Your task to perform on an android device: Add usb-c to usb-b to the cart on walmart, then select checkout. Image 0: 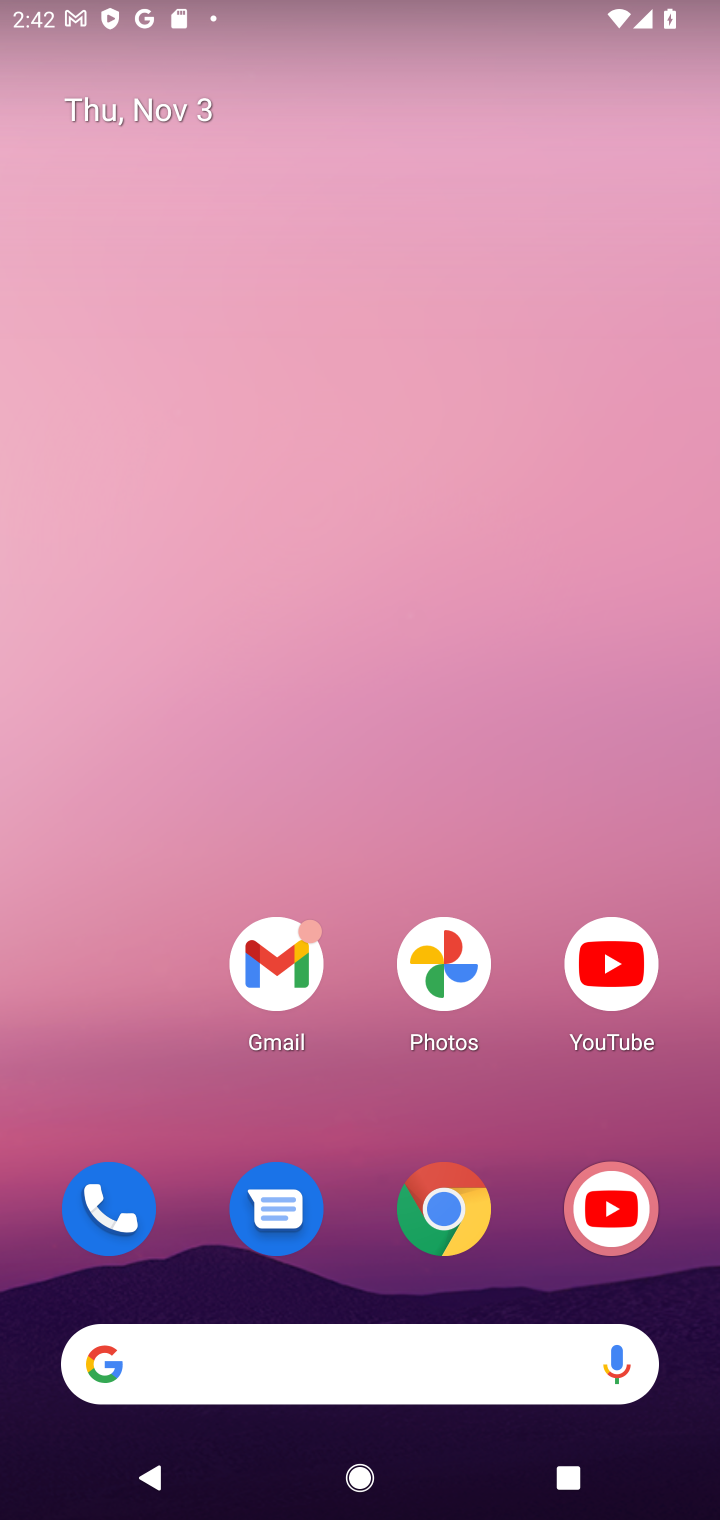
Step 0: click (454, 1254)
Your task to perform on an android device: Add usb-c to usb-b to the cart on walmart, then select checkout. Image 1: 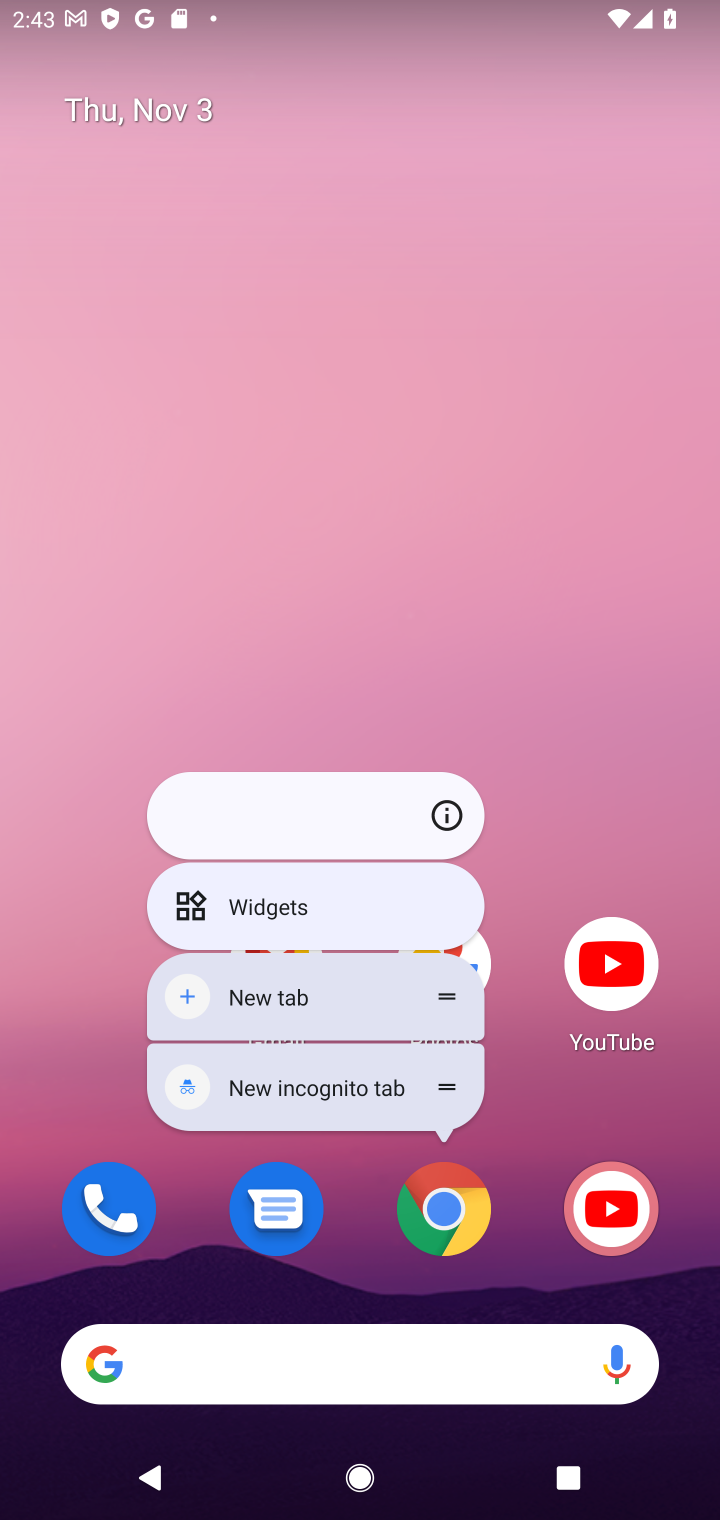
Step 1: click (445, 1225)
Your task to perform on an android device: Add usb-c to usb-b to the cart on walmart, then select checkout. Image 2: 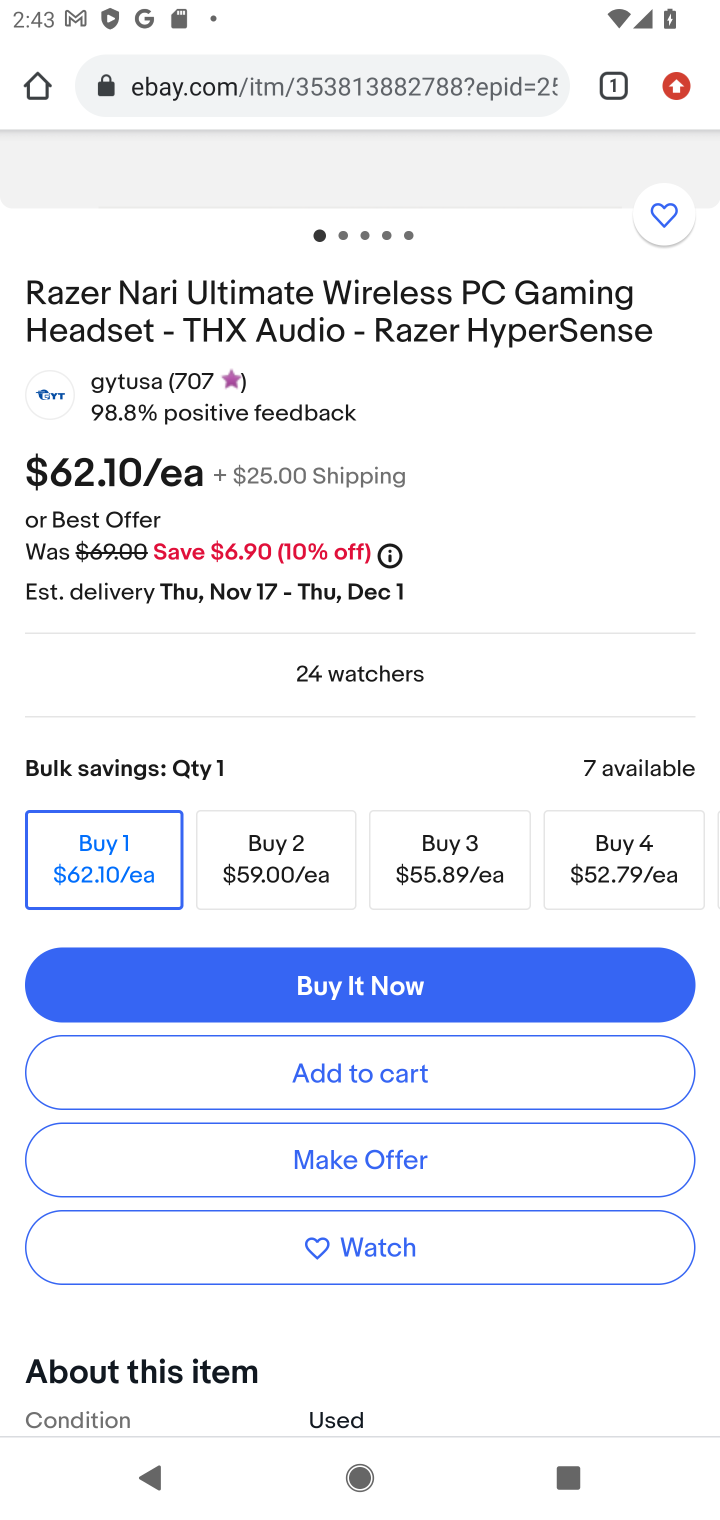
Step 2: click (366, 95)
Your task to perform on an android device: Add usb-c to usb-b to the cart on walmart, then select checkout. Image 3: 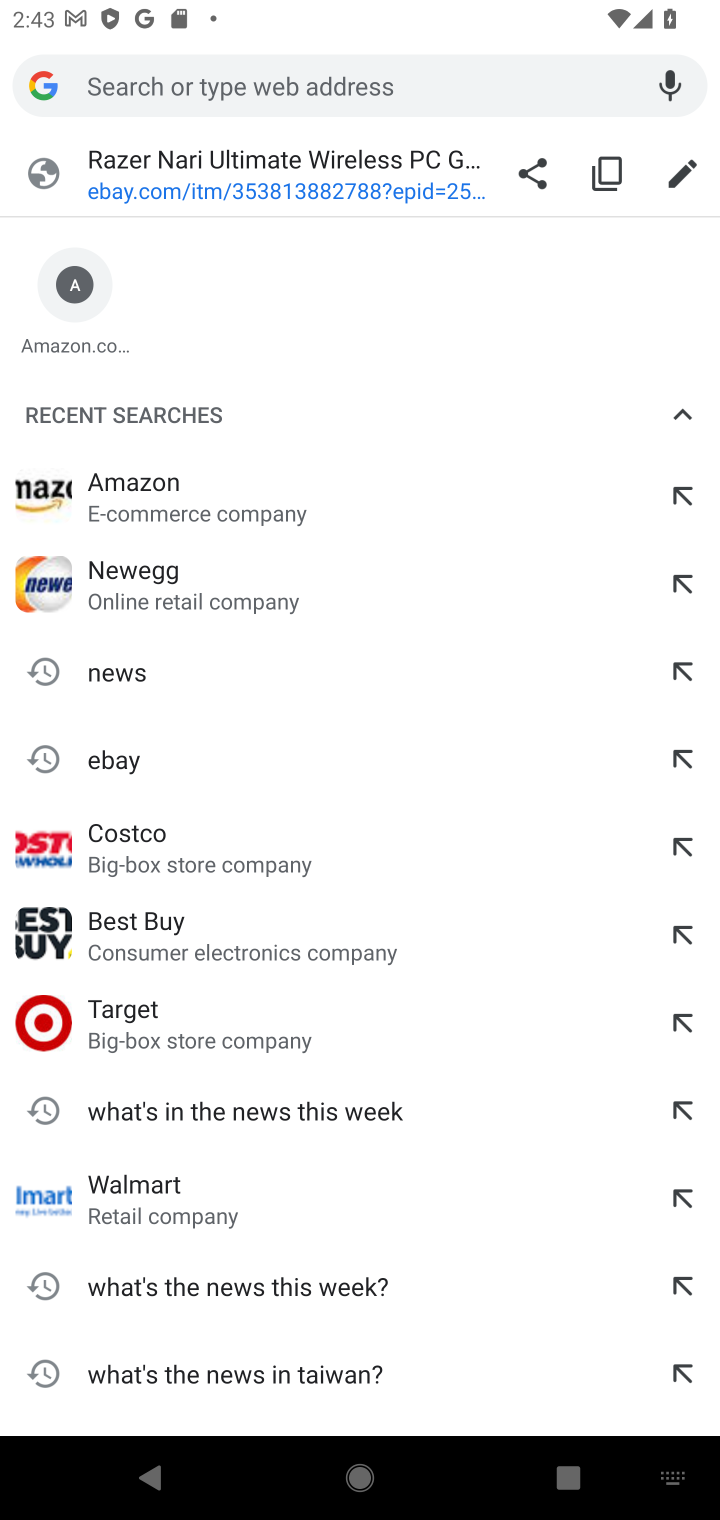
Step 3: type "walmart"
Your task to perform on an android device: Add usb-c to usb-b to the cart on walmart, then select checkout. Image 4: 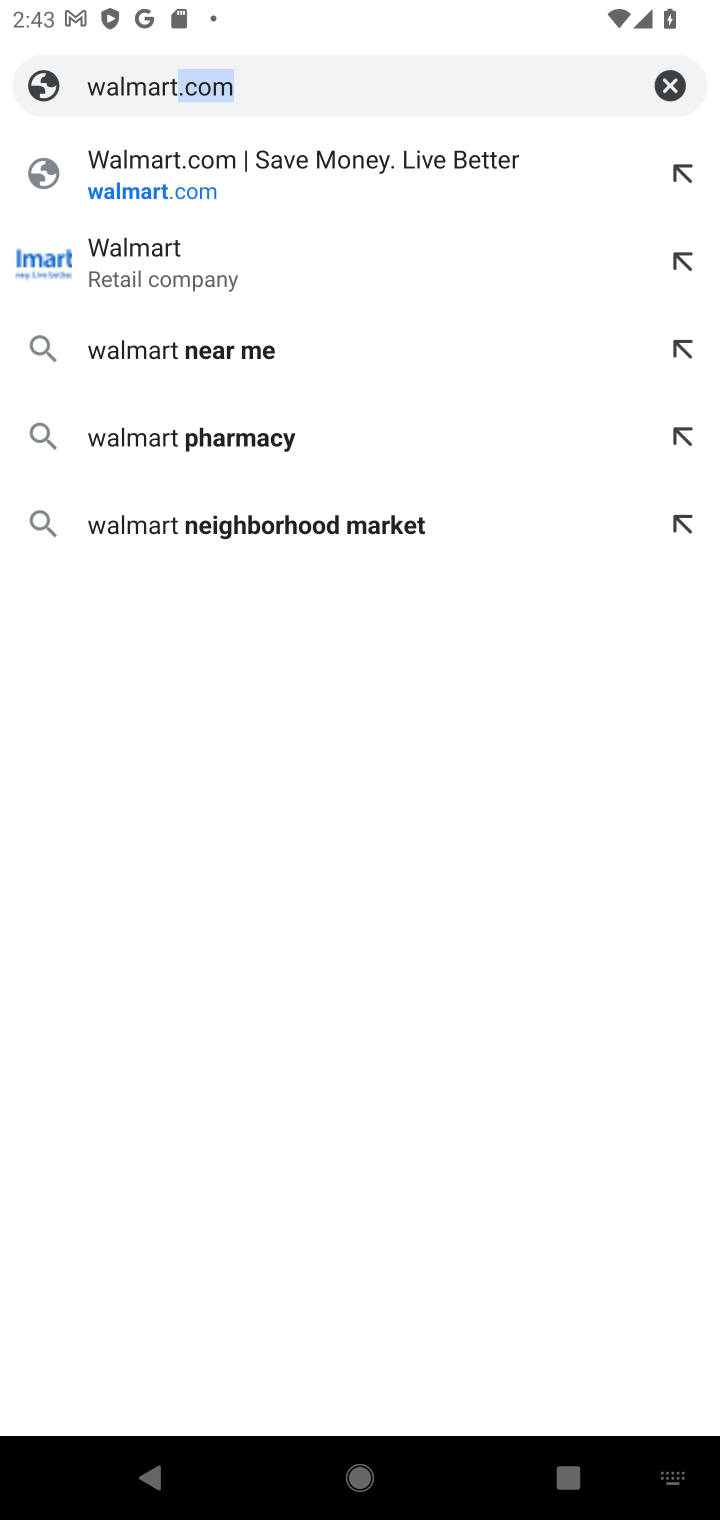
Step 4: click (261, 167)
Your task to perform on an android device: Add usb-c to usb-b to the cart on walmart, then select checkout. Image 5: 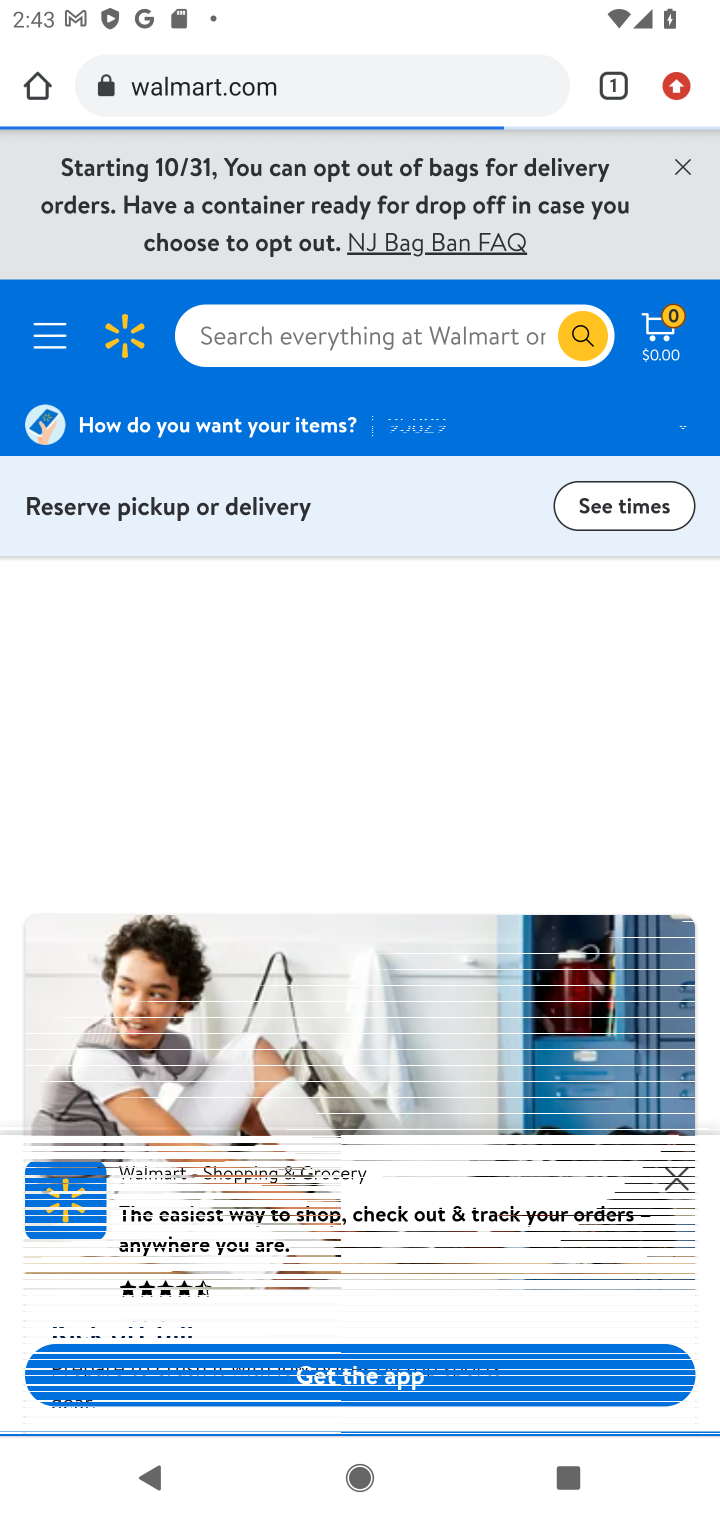
Step 5: click (358, 333)
Your task to perform on an android device: Add usb-c to usb-b to the cart on walmart, then select checkout. Image 6: 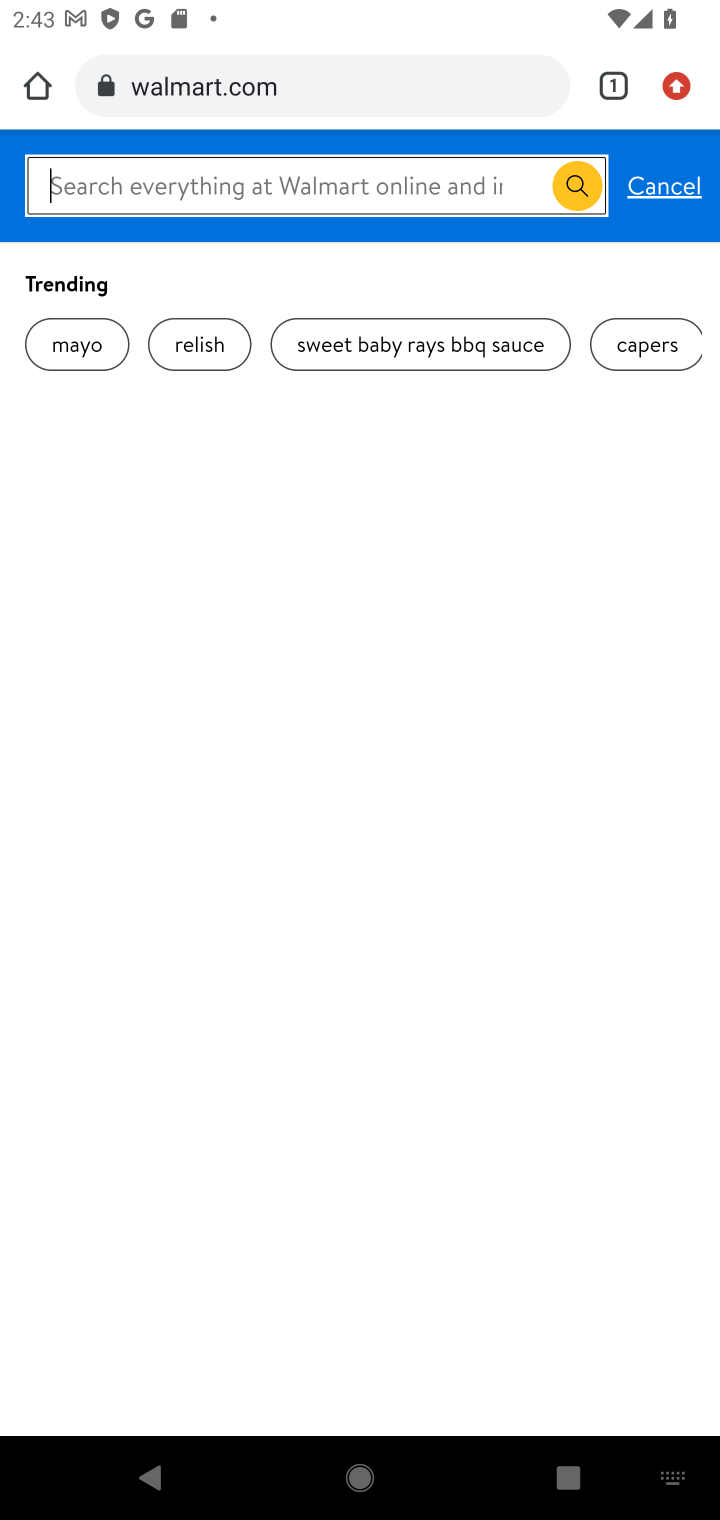
Step 6: type "usb-c to usb-b"
Your task to perform on an android device: Add usb-c to usb-b to the cart on walmart, then select checkout. Image 7: 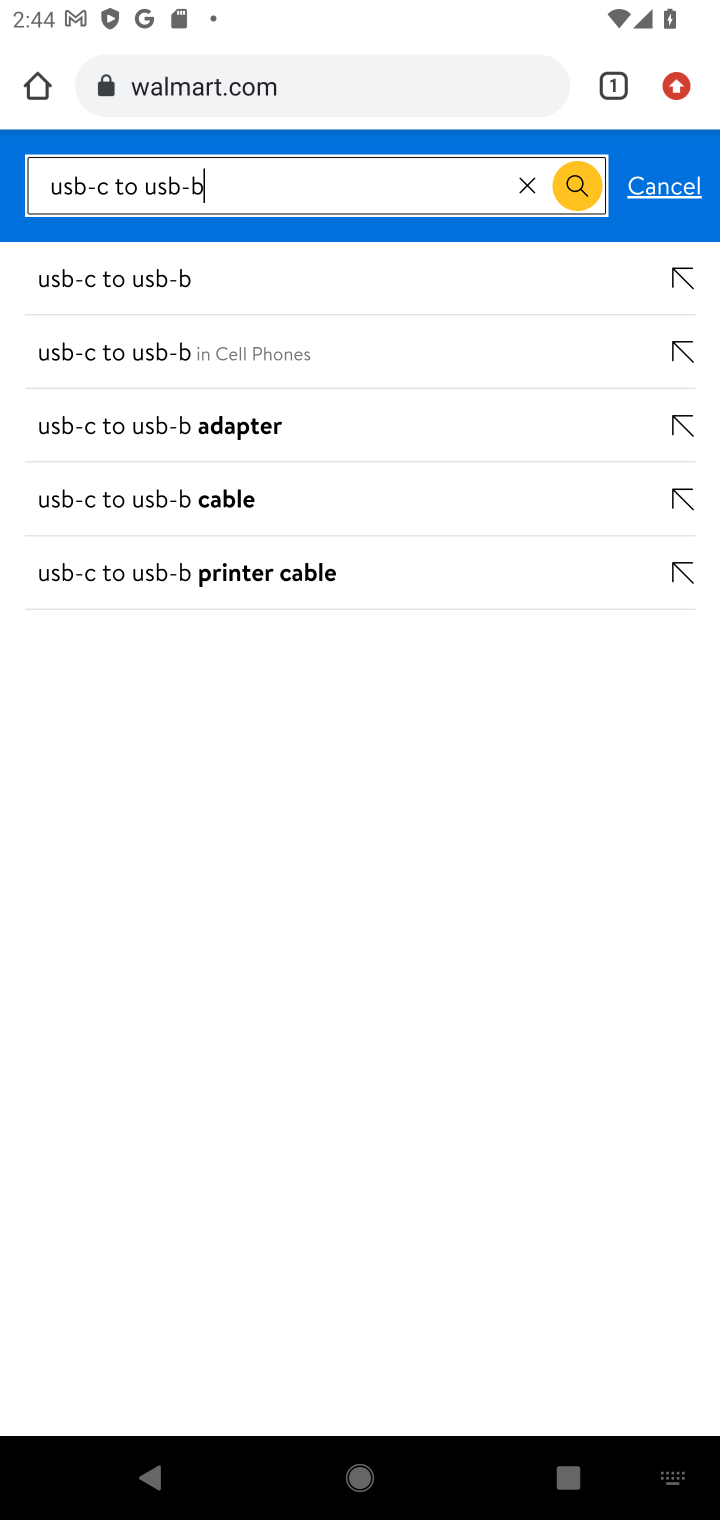
Step 7: press enter
Your task to perform on an android device: Add usb-c to usb-b to the cart on walmart, then select checkout. Image 8: 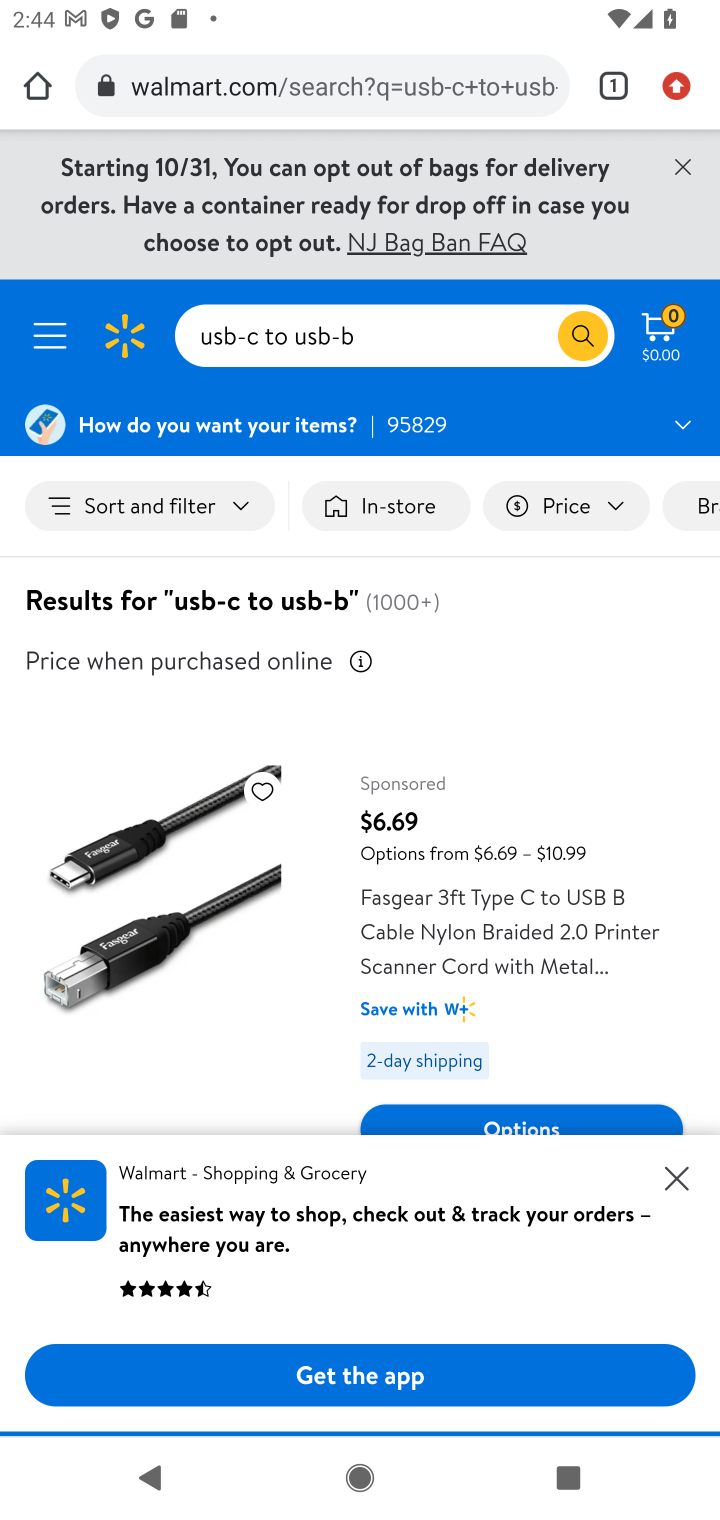
Step 8: click (671, 1169)
Your task to perform on an android device: Add usb-c to usb-b to the cart on walmart, then select checkout. Image 9: 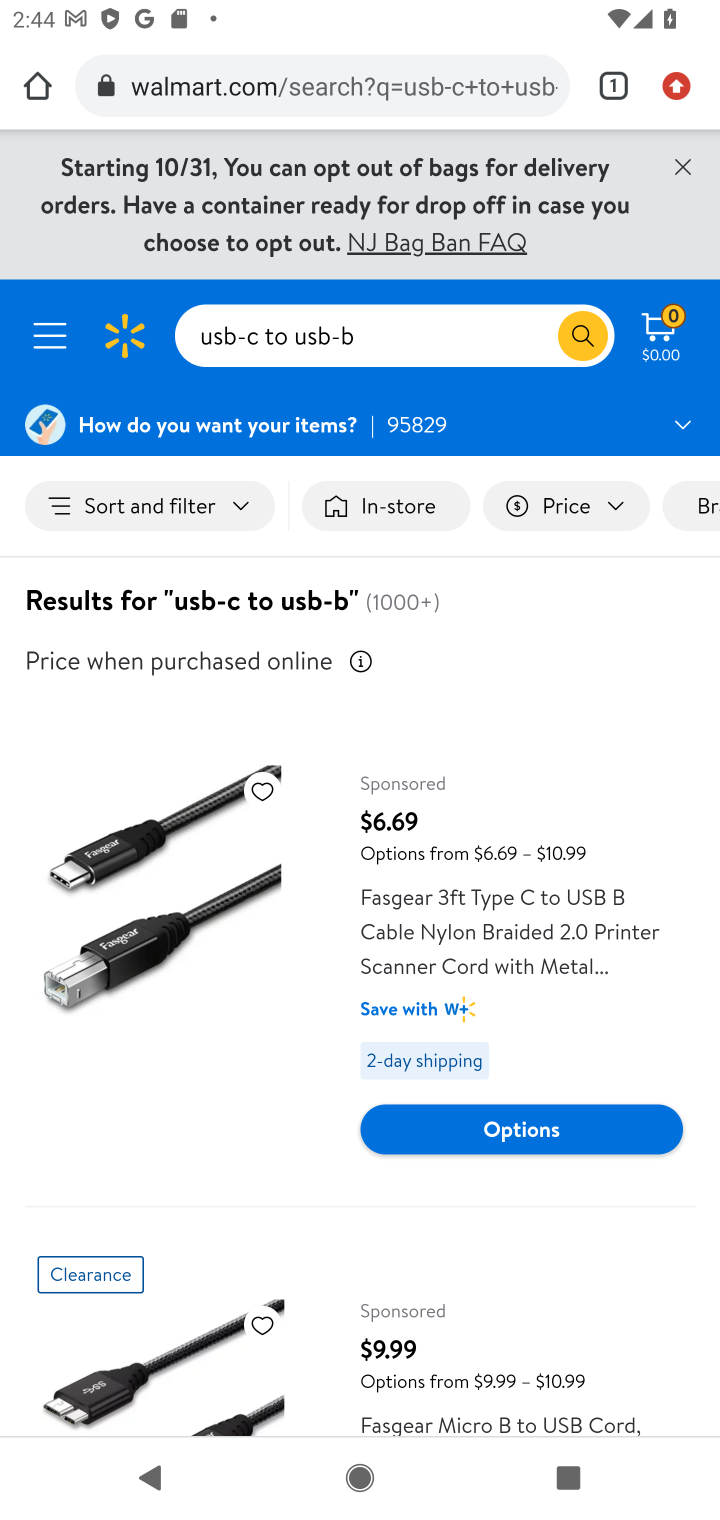
Step 9: click (419, 929)
Your task to perform on an android device: Add usb-c to usb-b to the cart on walmart, then select checkout. Image 10: 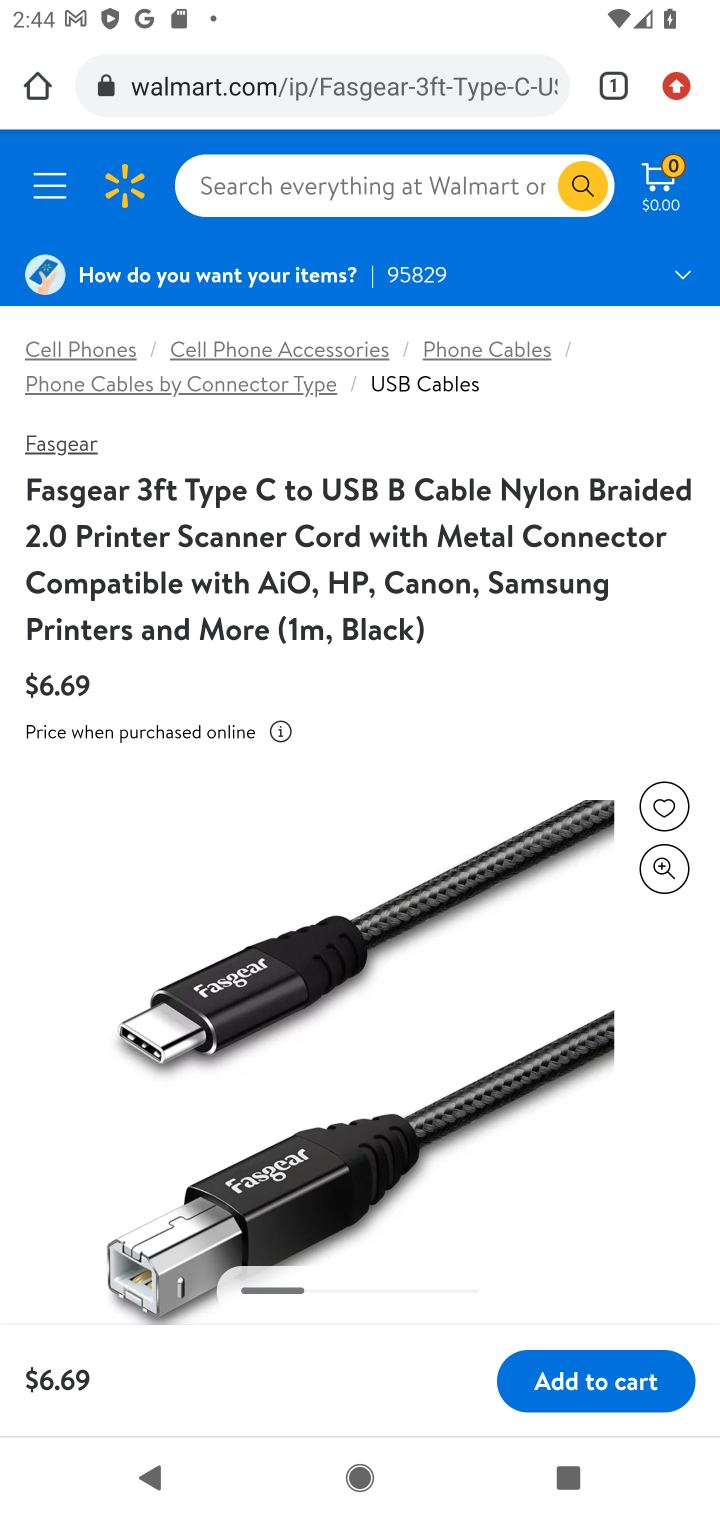
Step 10: click (602, 1383)
Your task to perform on an android device: Add usb-c to usb-b to the cart on walmart, then select checkout. Image 11: 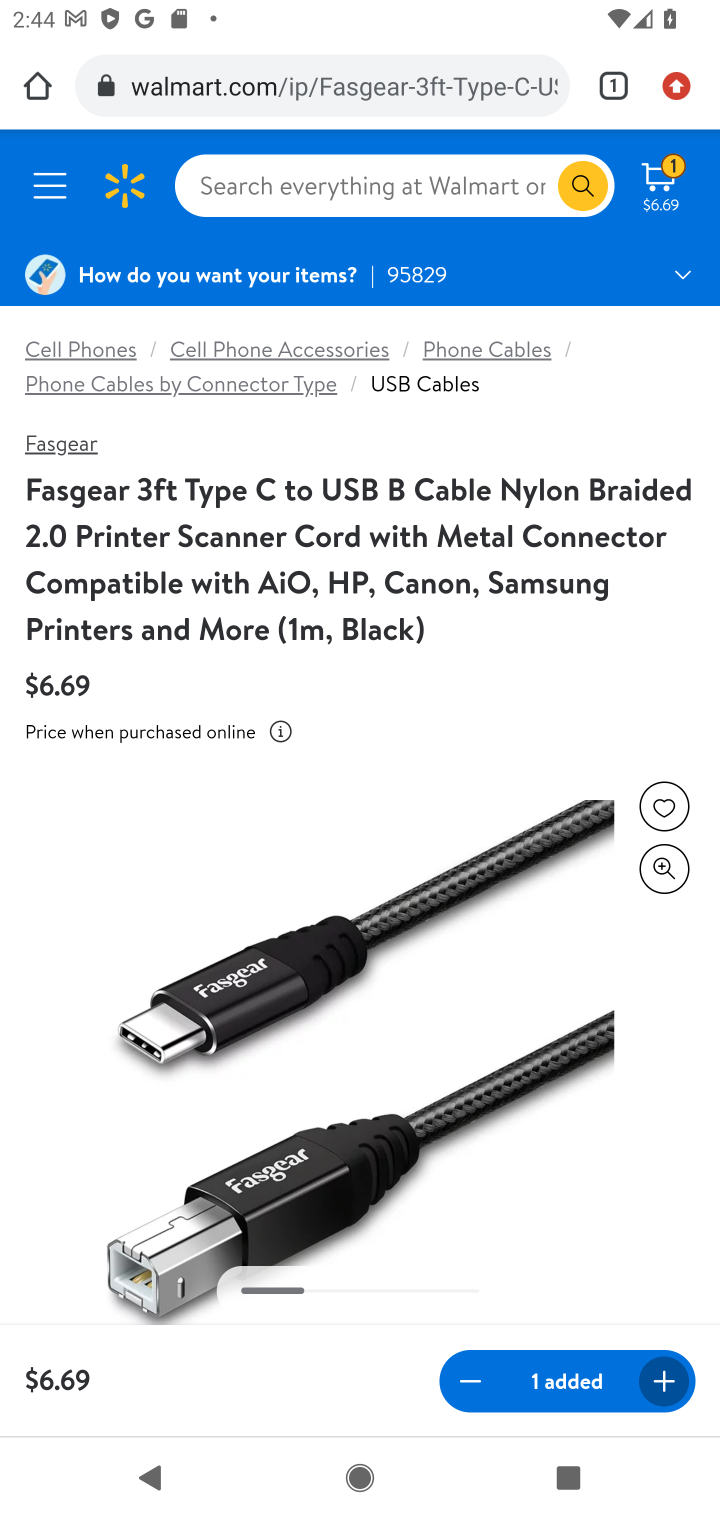
Step 11: drag from (602, 1228) to (475, 605)
Your task to perform on an android device: Add usb-c to usb-b to the cart on walmart, then select checkout. Image 12: 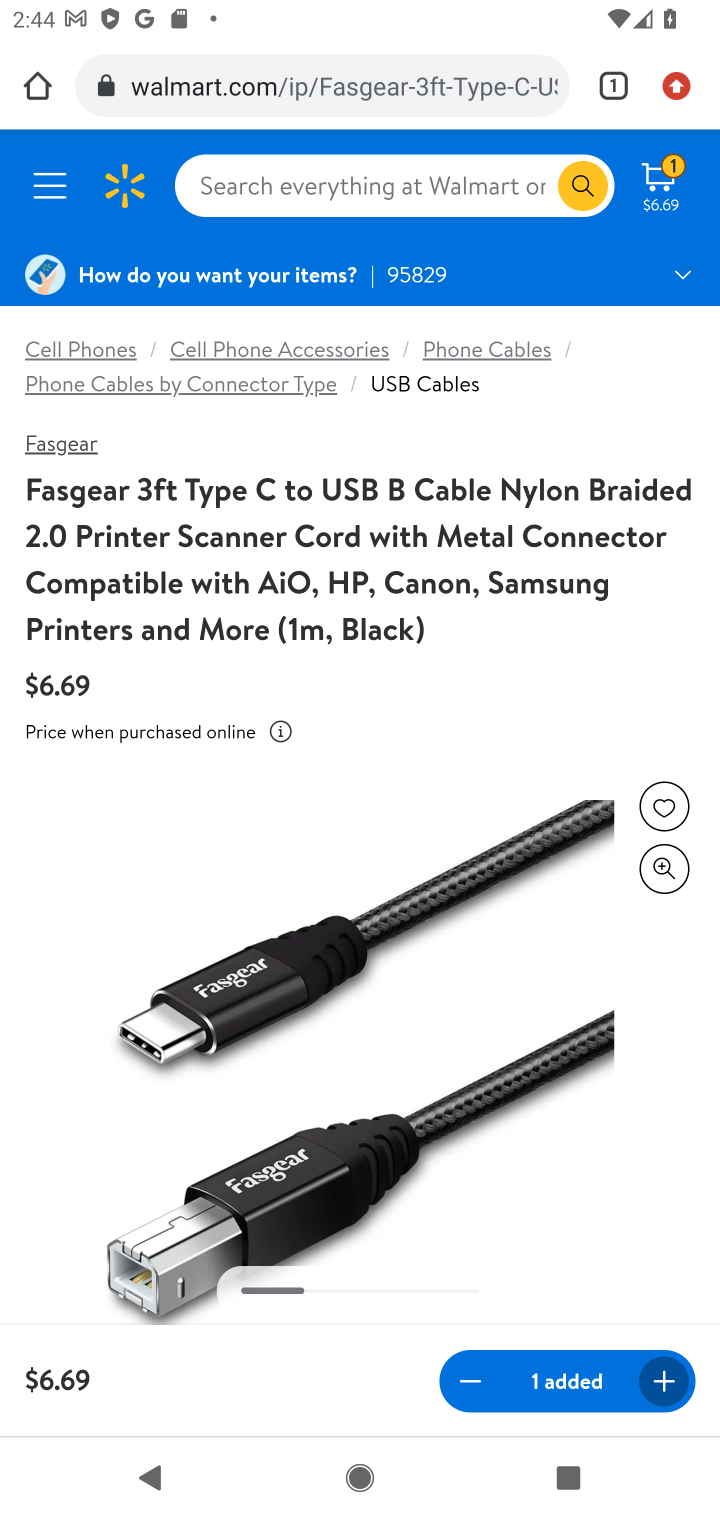
Step 12: click (680, 154)
Your task to perform on an android device: Add usb-c to usb-b to the cart on walmart, then select checkout. Image 13: 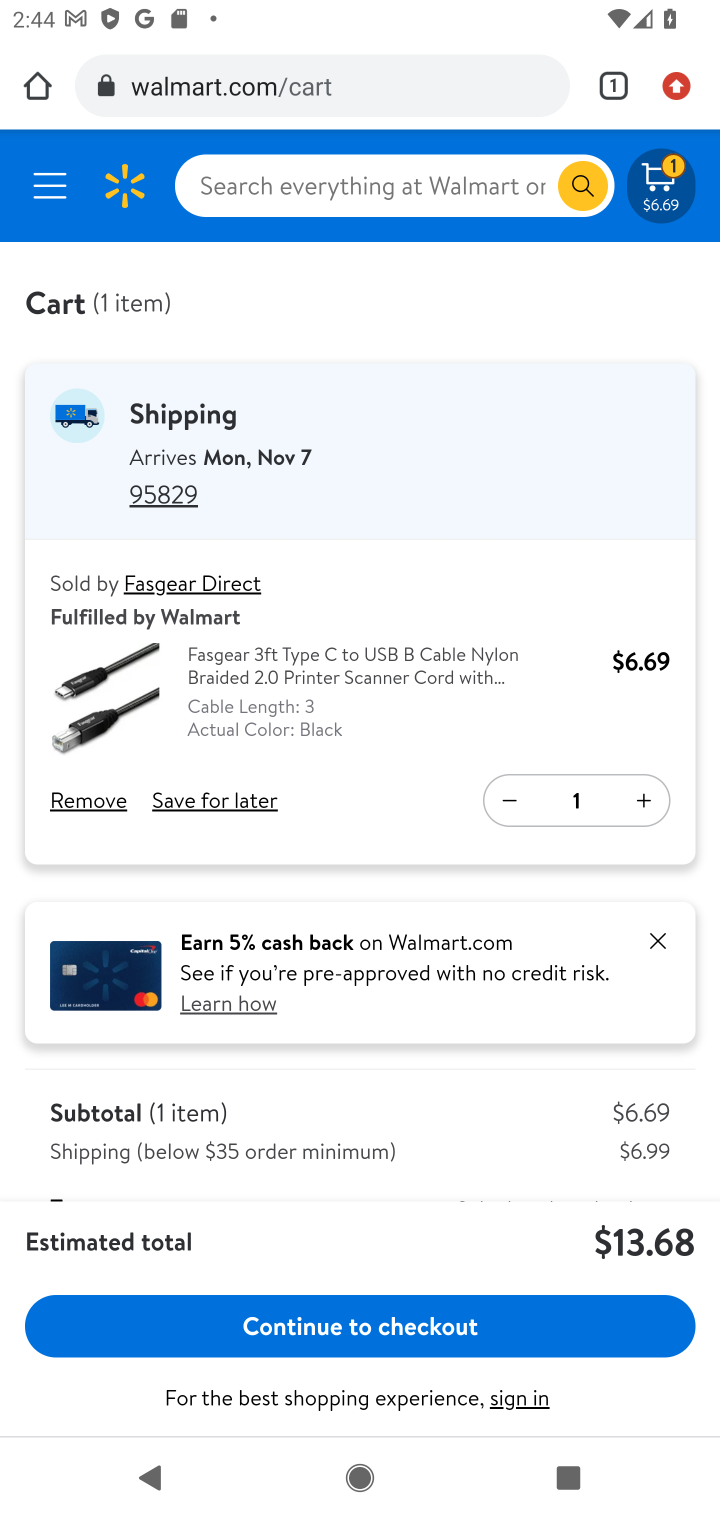
Step 13: click (507, 1343)
Your task to perform on an android device: Add usb-c to usb-b to the cart on walmart, then select checkout. Image 14: 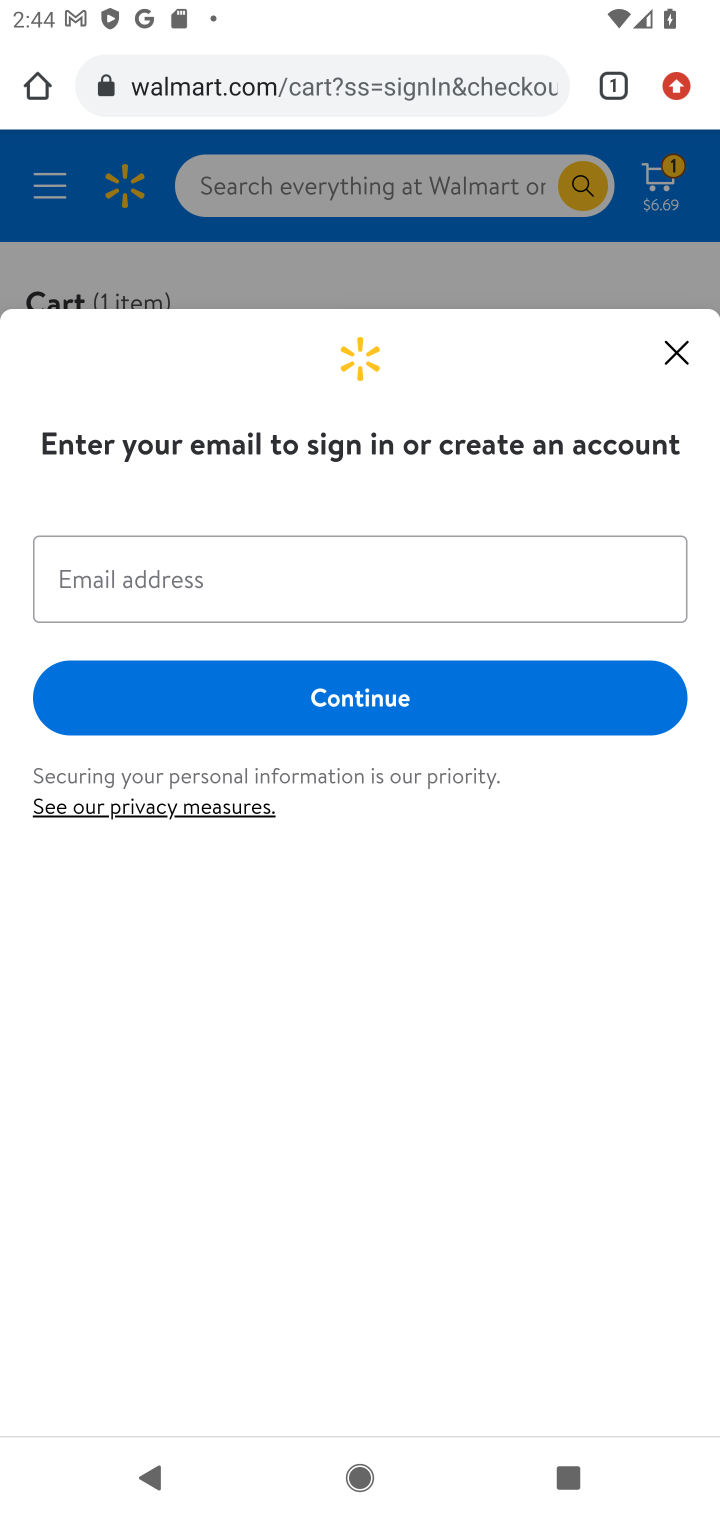
Step 14: task complete